Your task to perform on an android device: allow notifications from all sites in the chrome app Image 0: 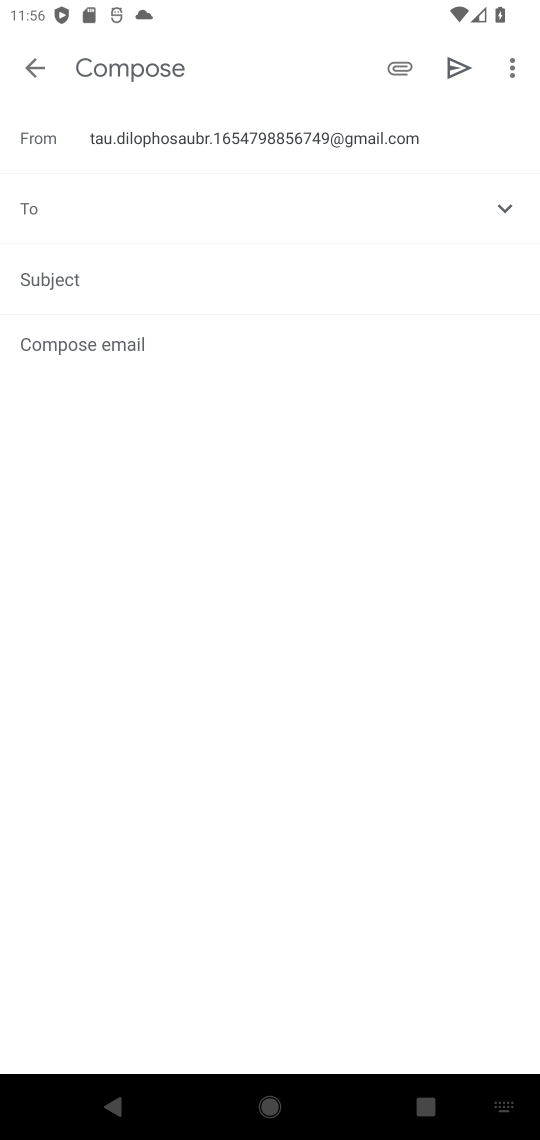
Step 0: press home button
Your task to perform on an android device: allow notifications from all sites in the chrome app Image 1: 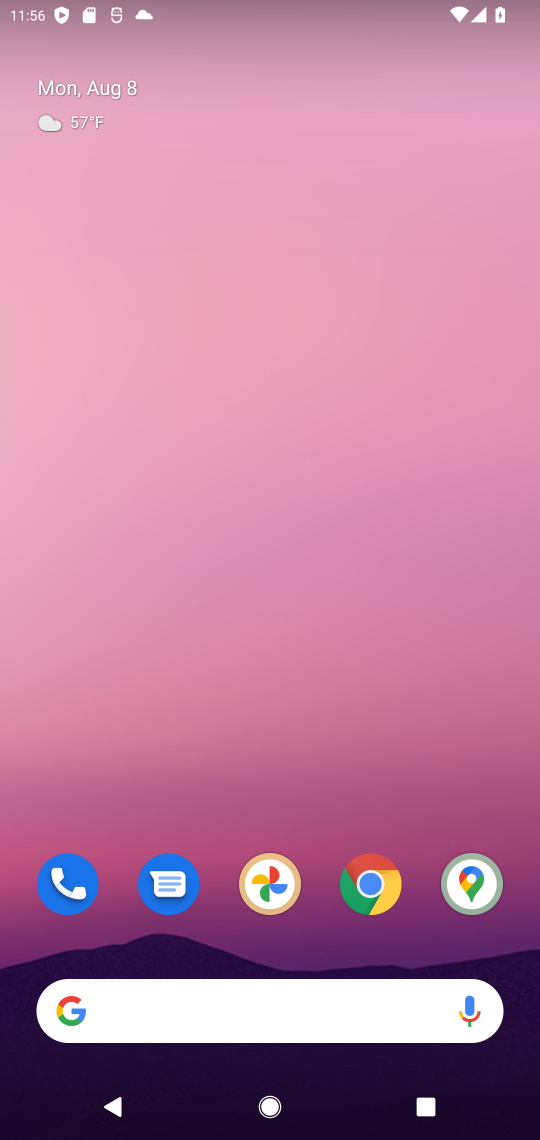
Step 1: click (385, 880)
Your task to perform on an android device: allow notifications from all sites in the chrome app Image 2: 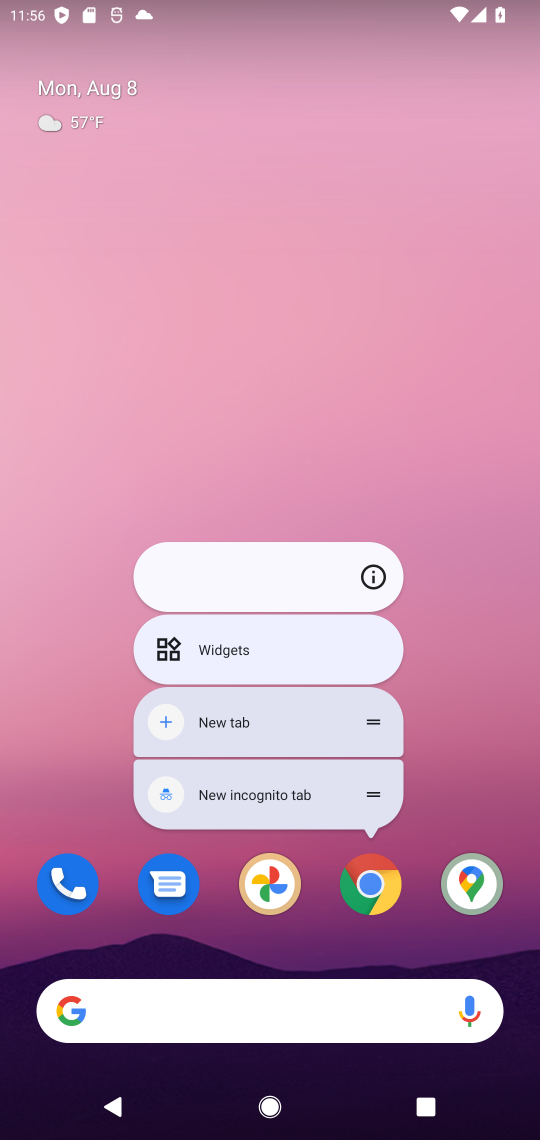
Step 2: click (385, 880)
Your task to perform on an android device: allow notifications from all sites in the chrome app Image 3: 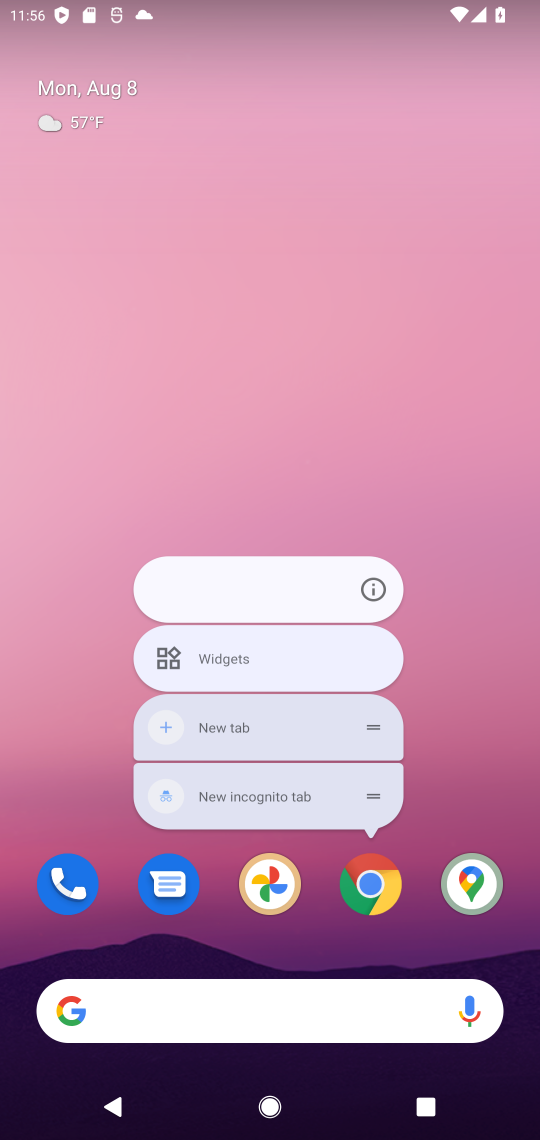
Step 3: click (385, 880)
Your task to perform on an android device: allow notifications from all sites in the chrome app Image 4: 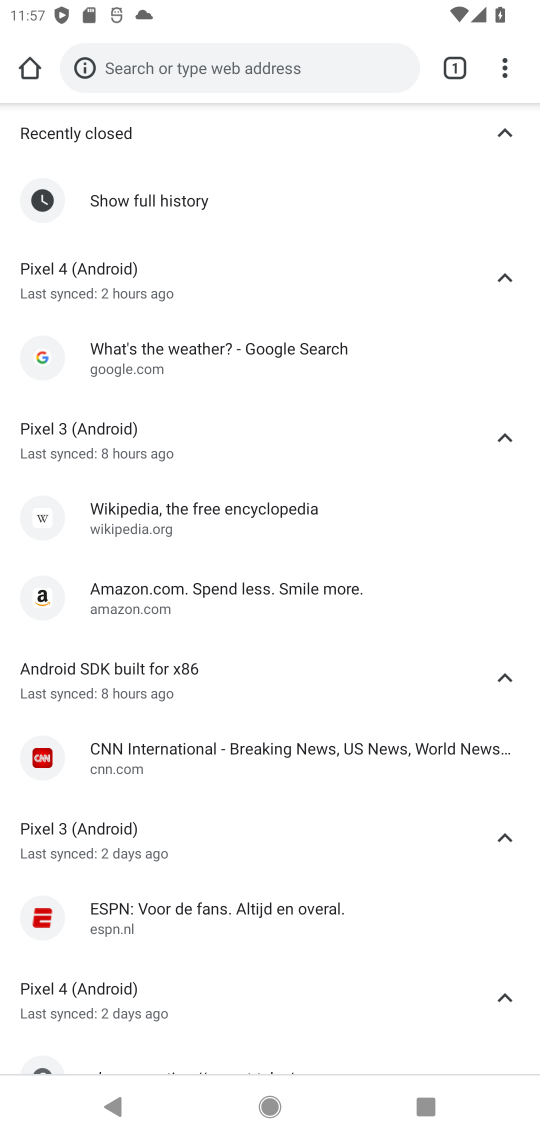
Step 4: click (504, 55)
Your task to perform on an android device: allow notifications from all sites in the chrome app Image 5: 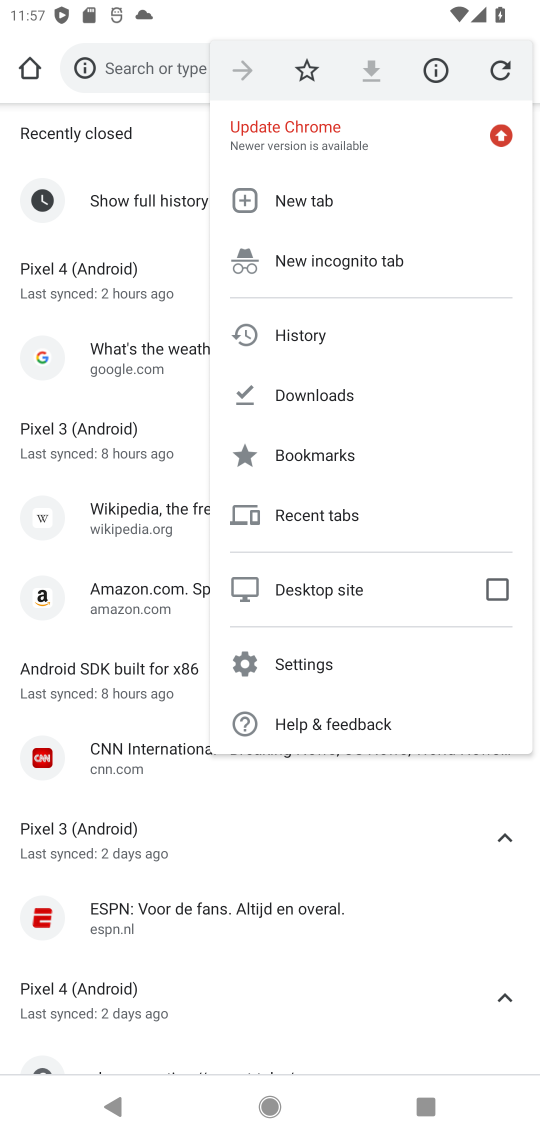
Step 5: click (339, 663)
Your task to perform on an android device: allow notifications from all sites in the chrome app Image 6: 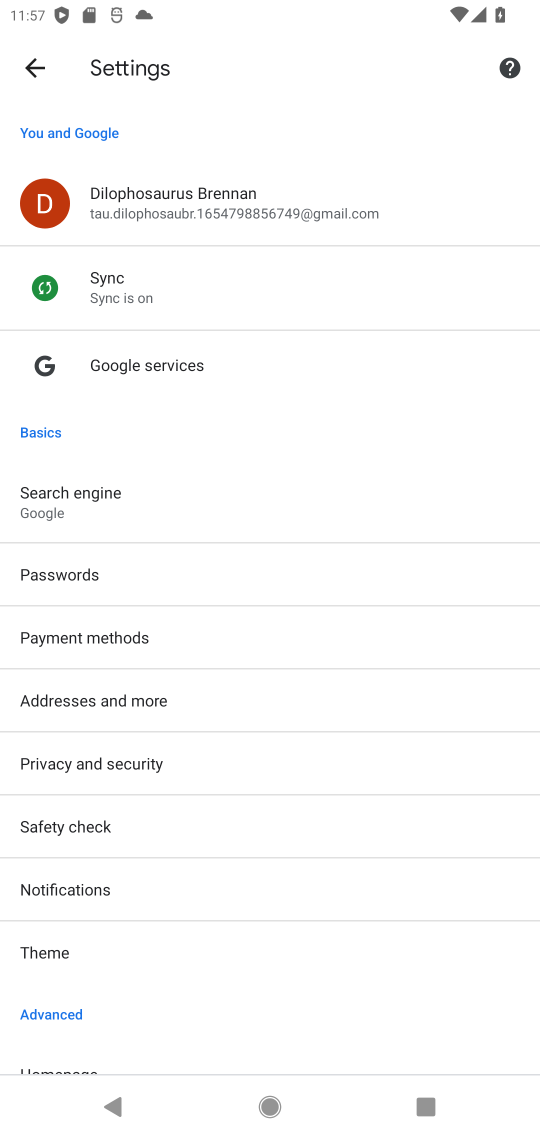
Step 6: click (112, 881)
Your task to perform on an android device: allow notifications from all sites in the chrome app Image 7: 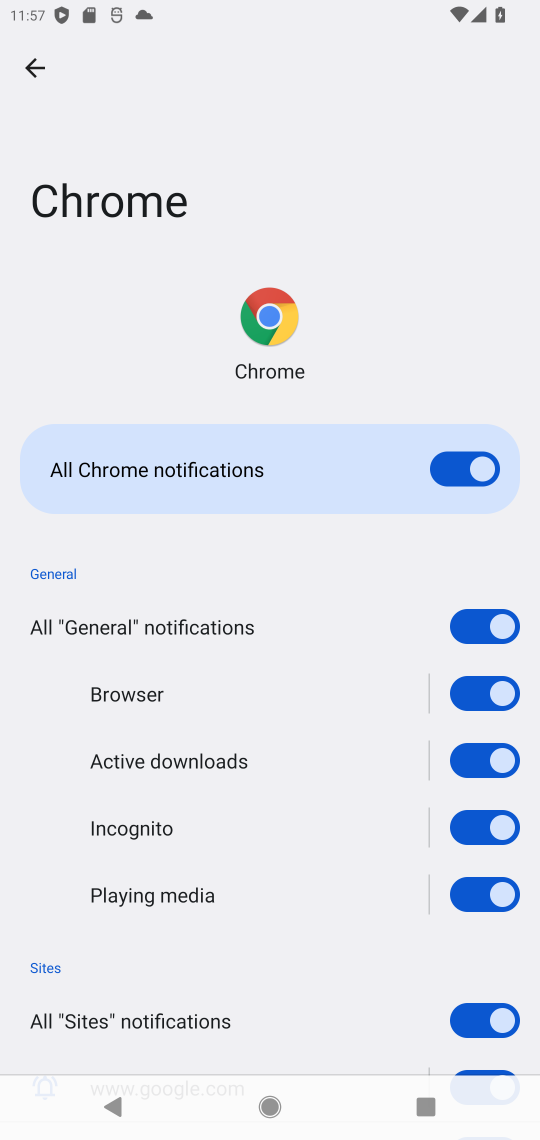
Step 7: task complete